Your task to perform on an android device: Open Yahoo.com Image 0: 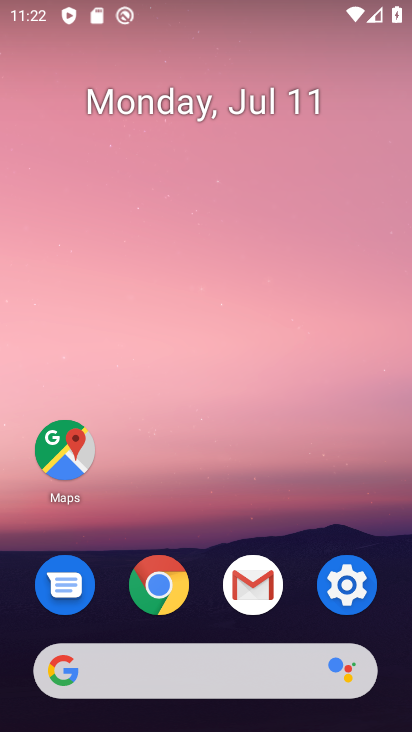
Step 0: click (154, 580)
Your task to perform on an android device: Open Yahoo.com Image 1: 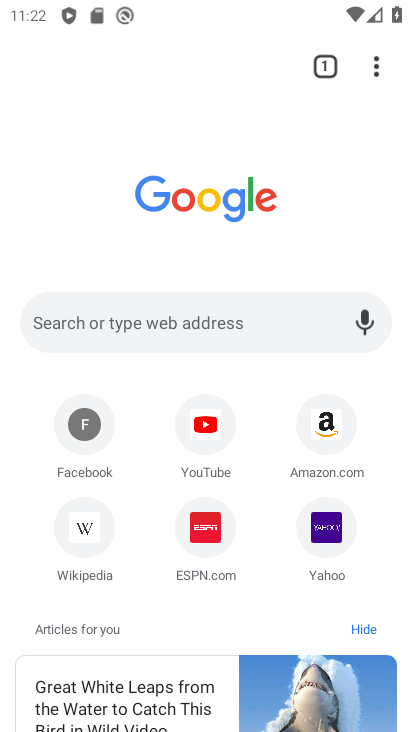
Step 1: click (329, 527)
Your task to perform on an android device: Open Yahoo.com Image 2: 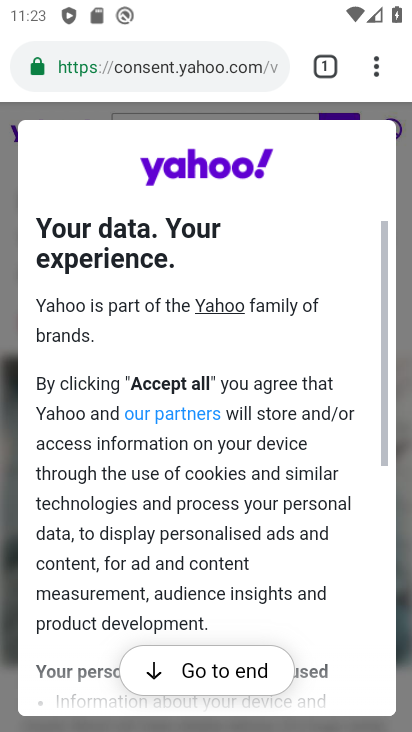
Step 2: drag from (262, 614) to (269, 339)
Your task to perform on an android device: Open Yahoo.com Image 3: 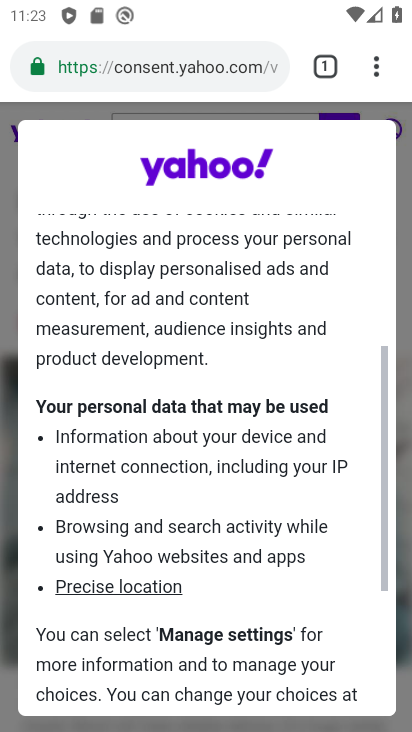
Step 3: drag from (185, 605) to (190, 359)
Your task to perform on an android device: Open Yahoo.com Image 4: 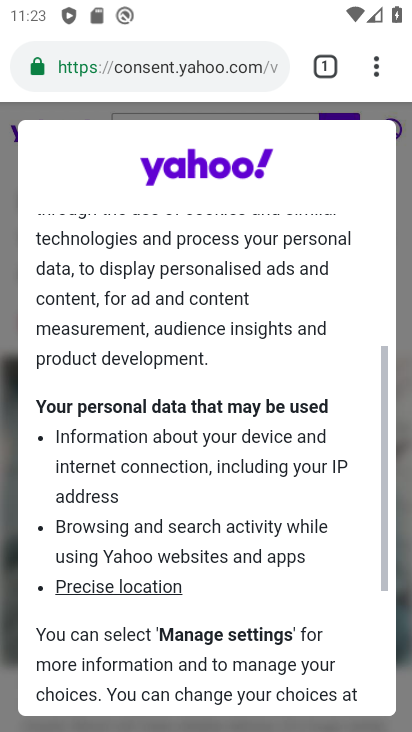
Step 4: drag from (181, 570) to (186, 304)
Your task to perform on an android device: Open Yahoo.com Image 5: 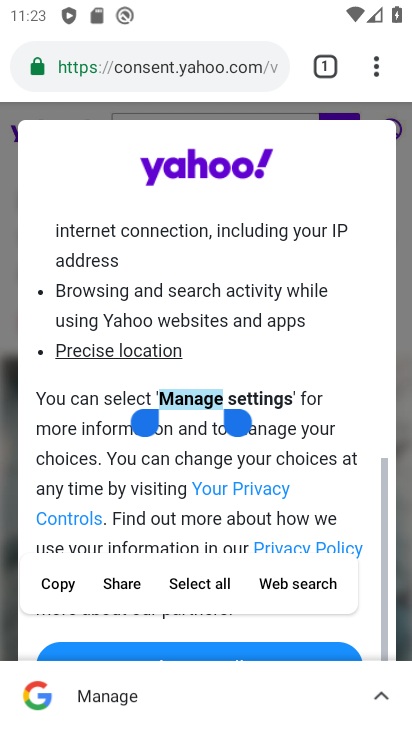
Step 5: drag from (311, 268) to (311, 234)
Your task to perform on an android device: Open Yahoo.com Image 6: 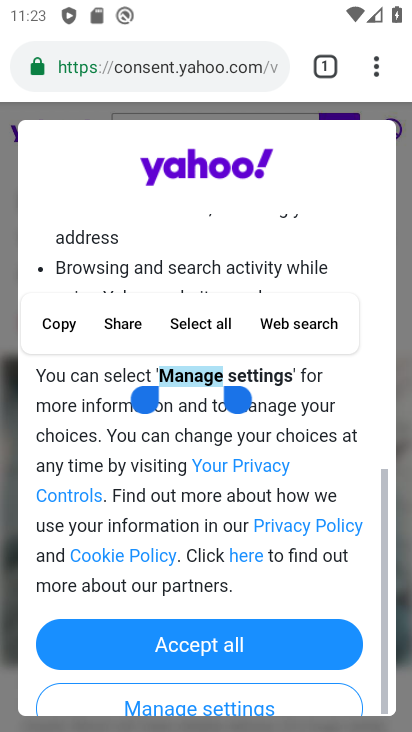
Step 6: click (206, 644)
Your task to perform on an android device: Open Yahoo.com Image 7: 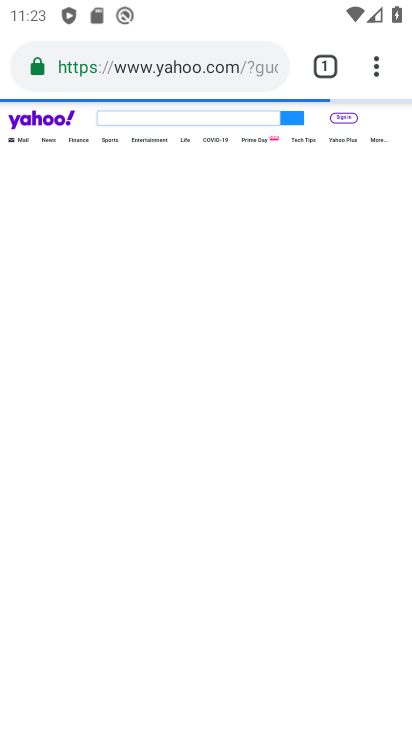
Step 7: task complete